Your task to perform on an android device: Open Chrome and go to the settings page Image 0: 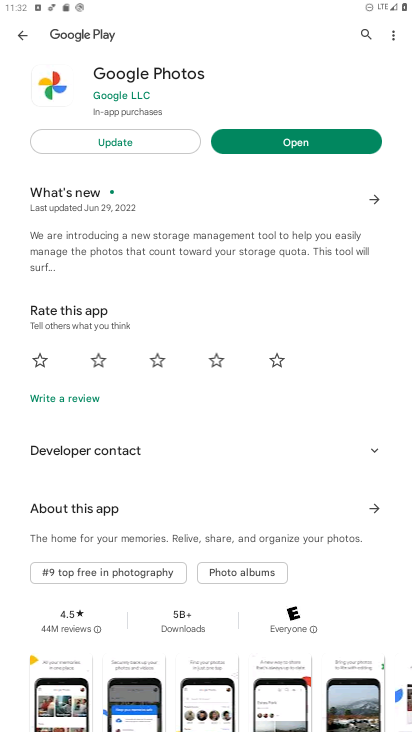
Step 0: press home button
Your task to perform on an android device: Open Chrome and go to the settings page Image 1: 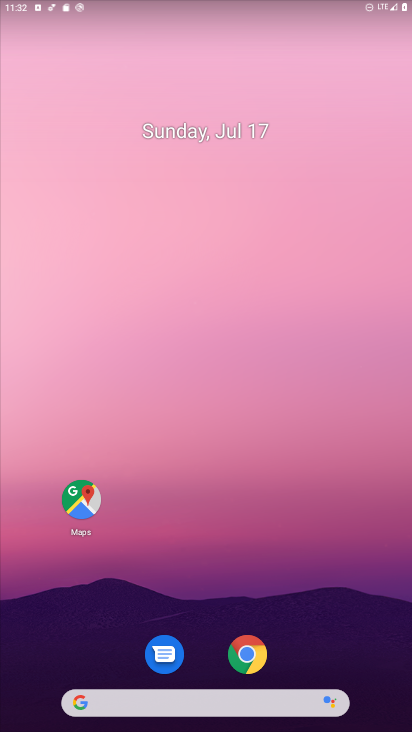
Step 1: click (232, 643)
Your task to perform on an android device: Open Chrome and go to the settings page Image 2: 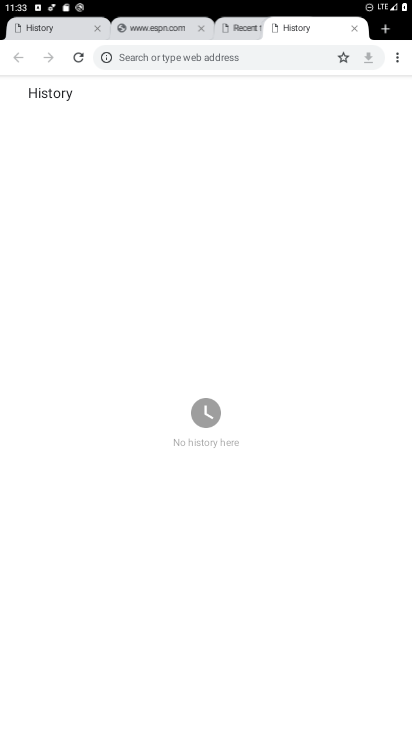
Step 2: click (400, 52)
Your task to perform on an android device: Open Chrome and go to the settings page Image 3: 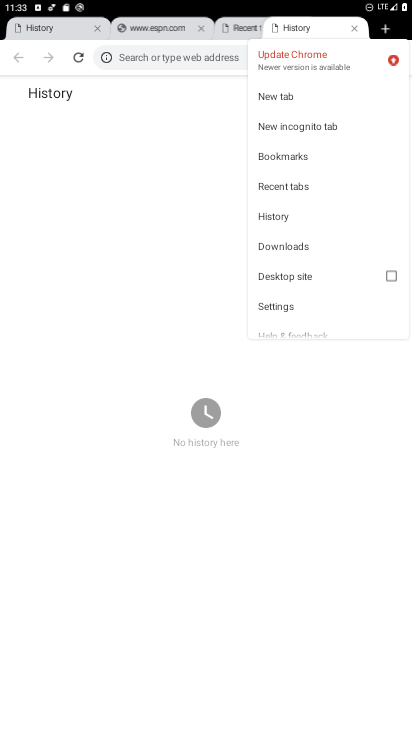
Step 3: click (288, 300)
Your task to perform on an android device: Open Chrome and go to the settings page Image 4: 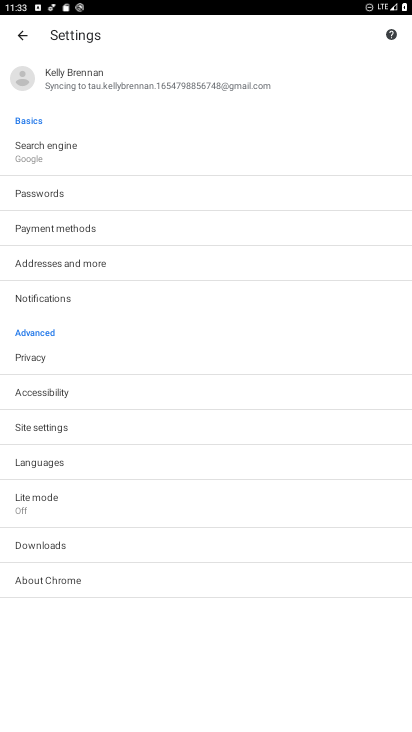
Step 4: task complete